Your task to perform on an android device: empty trash in google photos Image 0: 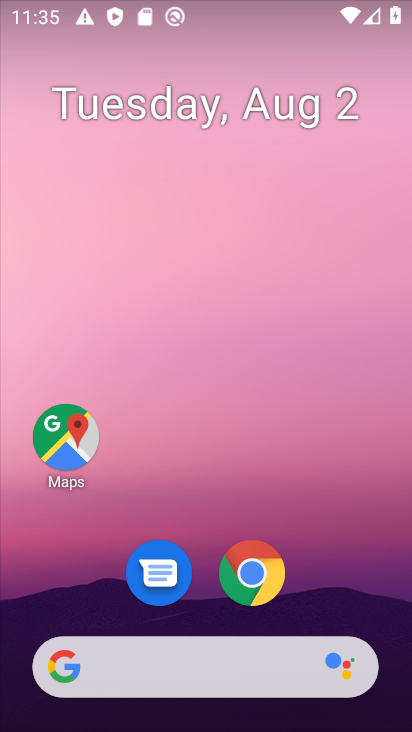
Step 0: drag from (246, 620) to (272, 36)
Your task to perform on an android device: empty trash in google photos Image 1: 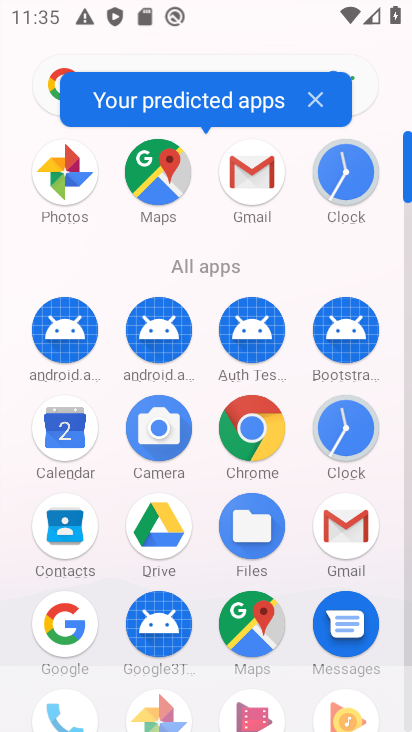
Step 1: drag from (212, 512) to (270, 85)
Your task to perform on an android device: empty trash in google photos Image 2: 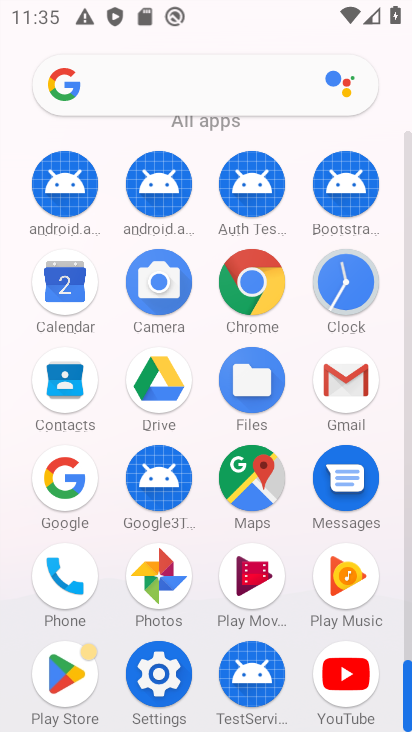
Step 2: click (156, 590)
Your task to perform on an android device: empty trash in google photos Image 3: 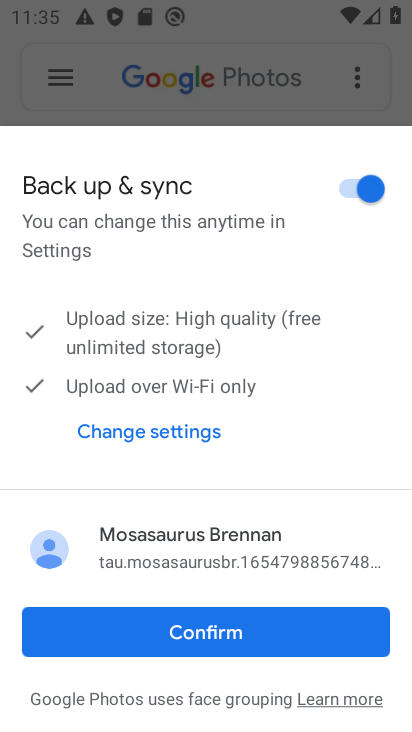
Step 3: click (214, 629)
Your task to perform on an android device: empty trash in google photos Image 4: 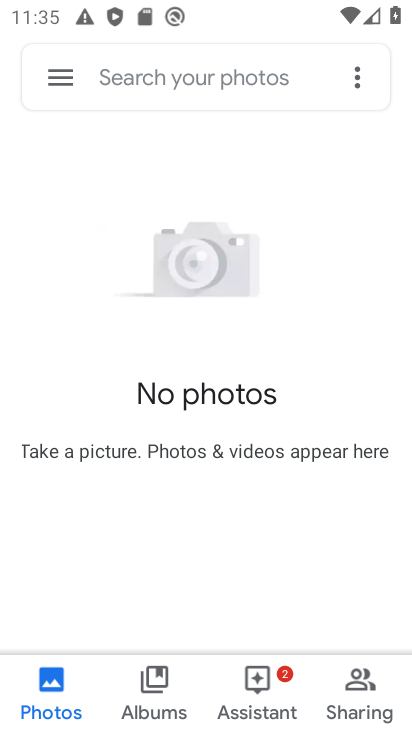
Step 4: click (50, 86)
Your task to perform on an android device: empty trash in google photos Image 5: 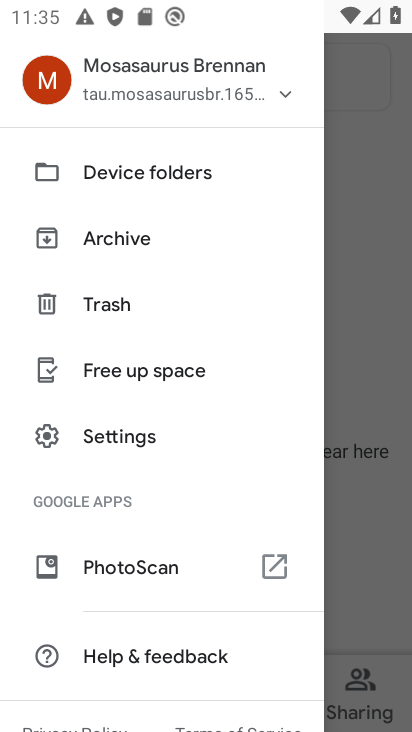
Step 5: click (93, 301)
Your task to perform on an android device: empty trash in google photos Image 6: 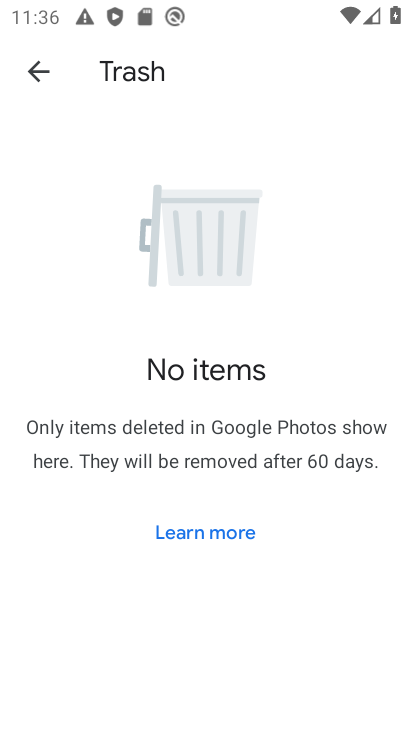
Step 6: task complete